Your task to perform on an android device: manage bookmarks in the chrome app Image 0: 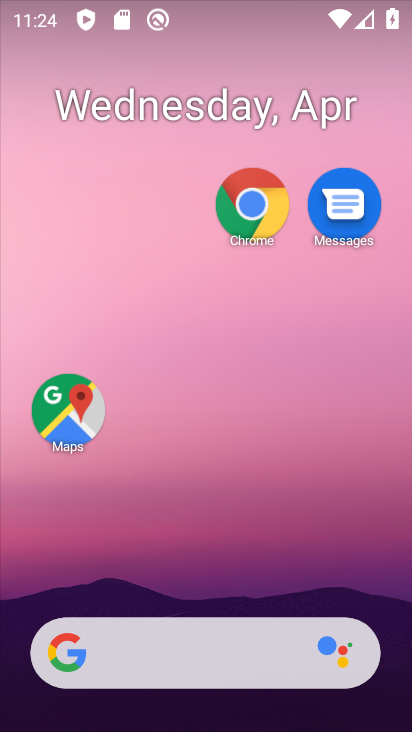
Step 0: drag from (202, 597) to (171, 49)
Your task to perform on an android device: manage bookmarks in the chrome app Image 1: 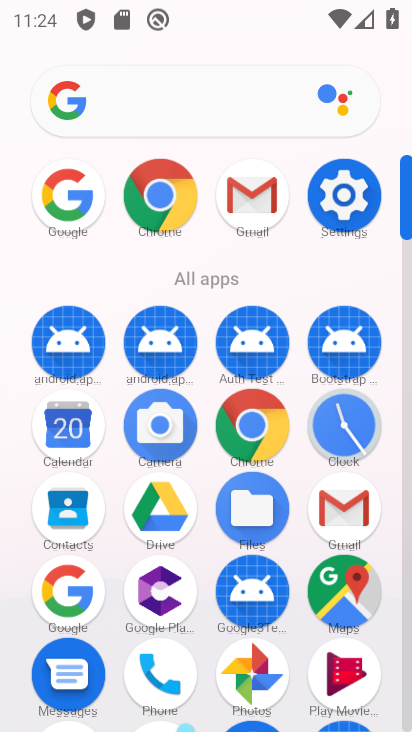
Step 1: click (258, 430)
Your task to perform on an android device: manage bookmarks in the chrome app Image 2: 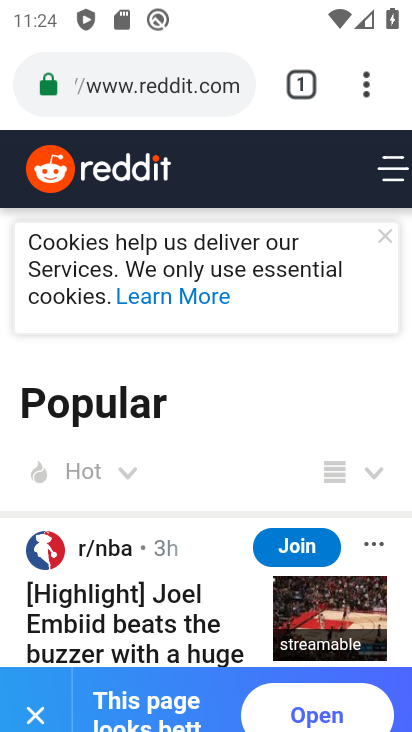
Step 2: task complete